Your task to perform on an android device: Go to CNN.com Image 0: 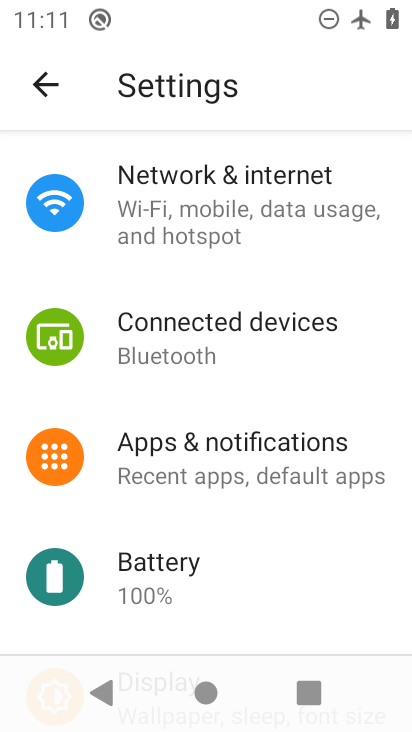
Step 0: drag from (218, 539) to (331, 209)
Your task to perform on an android device: Go to CNN.com Image 1: 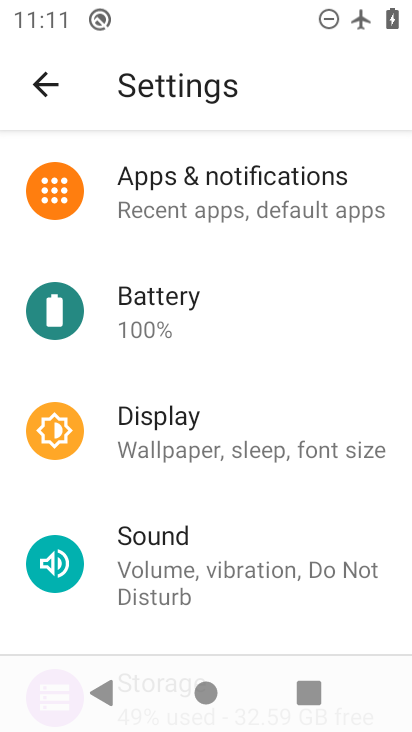
Step 1: press home button
Your task to perform on an android device: Go to CNN.com Image 2: 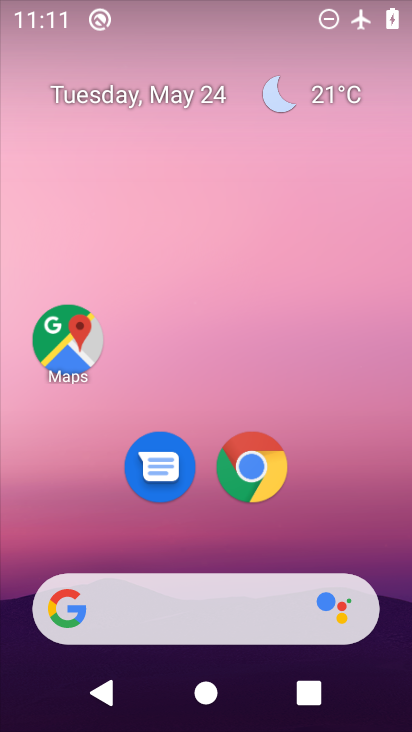
Step 2: click (208, 614)
Your task to perform on an android device: Go to CNN.com Image 3: 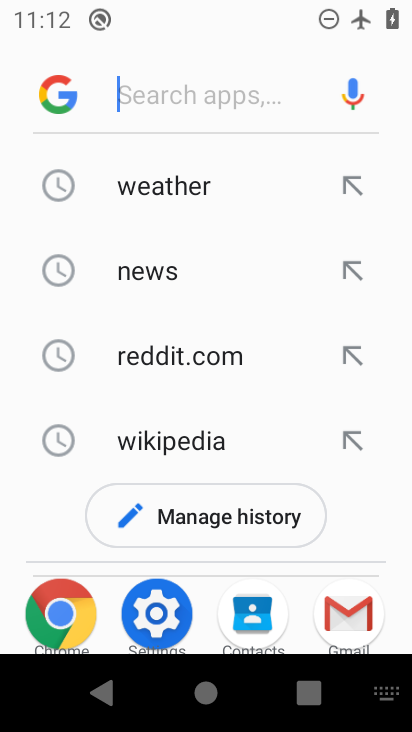
Step 3: type "CNN.com"
Your task to perform on an android device: Go to CNN.com Image 4: 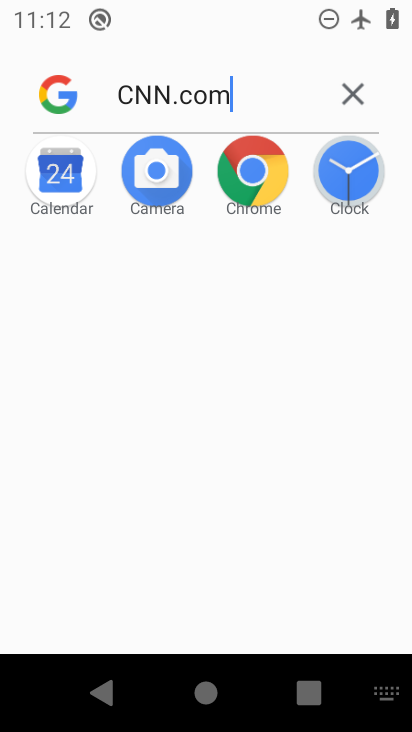
Step 4: type ""
Your task to perform on an android device: Go to CNN.com Image 5: 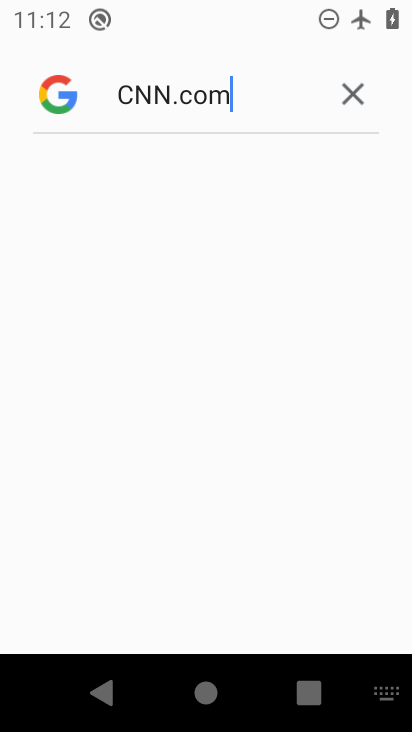
Step 5: task complete